Your task to perform on an android device: turn on sleep mode Image 0: 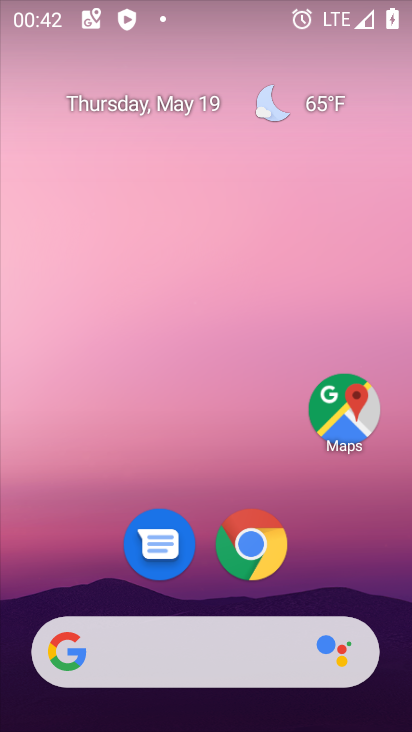
Step 0: drag from (383, 580) to (330, 163)
Your task to perform on an android device: turn on sleep mode Image 1: 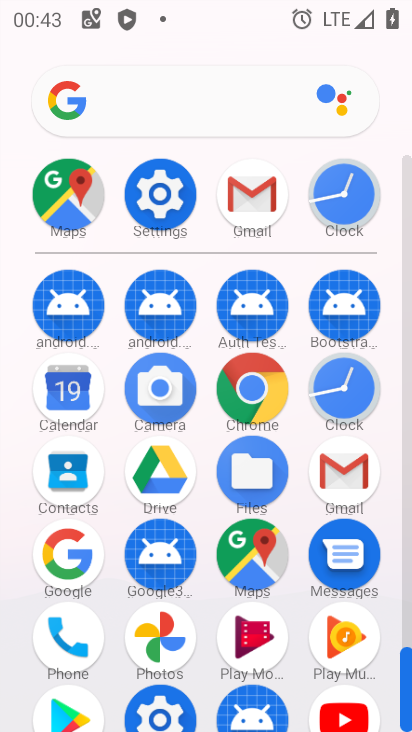
Step 1: click (164, 202)
Your task to perform on an android device: turn on sleep mode Image 2: 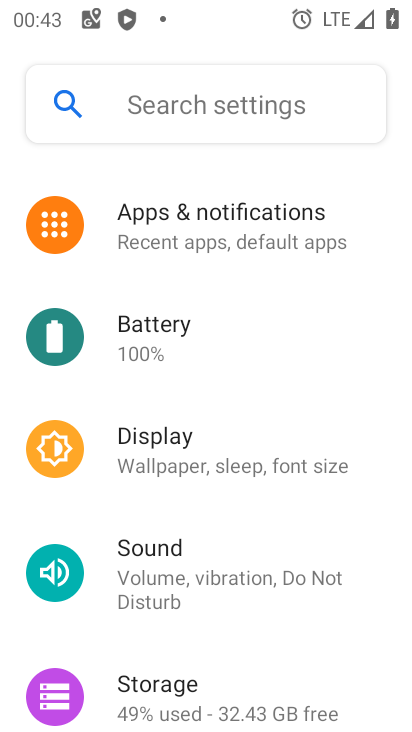
Step 2: drag from (366, 291) to (369, 434)
Your task to perform on an android device: turn on sleep mode Image 3: 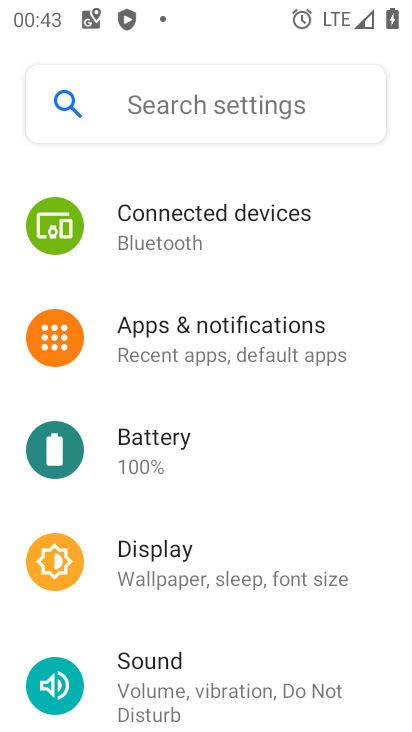
Step 3: drag from (335, 217) to (322, 405)
Your task to perform on an android device: turn on sleep mode Image 4: 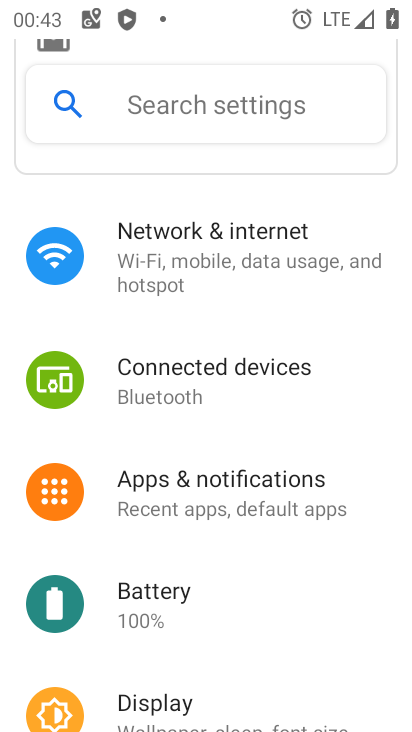
Step 4: drag from (345, 209) to (359, 352)
Your task to perform on an android device: turn on sleep mode Image 5: 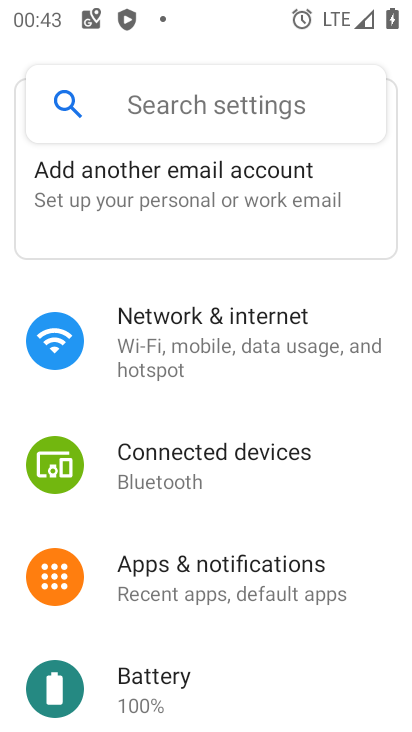
Step 5: drag from (351, 282) to (348, 462)
Your task to perform on an android device: turn on sleep mode Image 6: 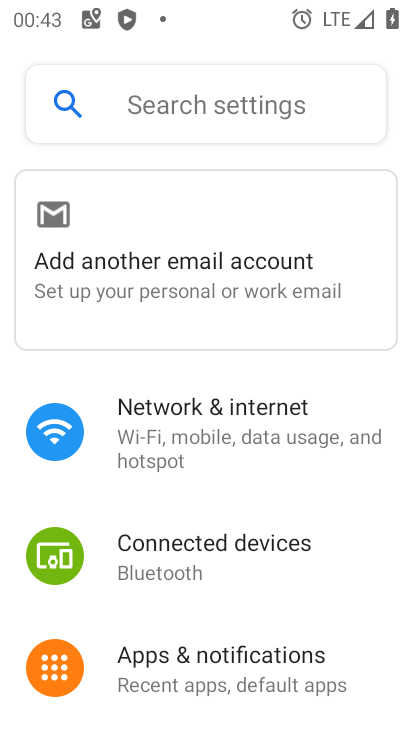
Step 6: drag from (355, 550) to (351, 407)
Your task to perform on an android device: turn on sleep mode Image 7: 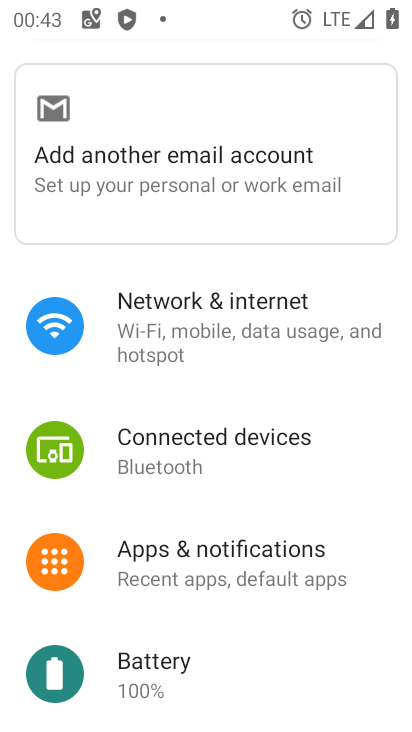
Step 7: drag from (367, 619) to (362, 509)
Your task to perform on an android device: turn on sleep mode Image 8: 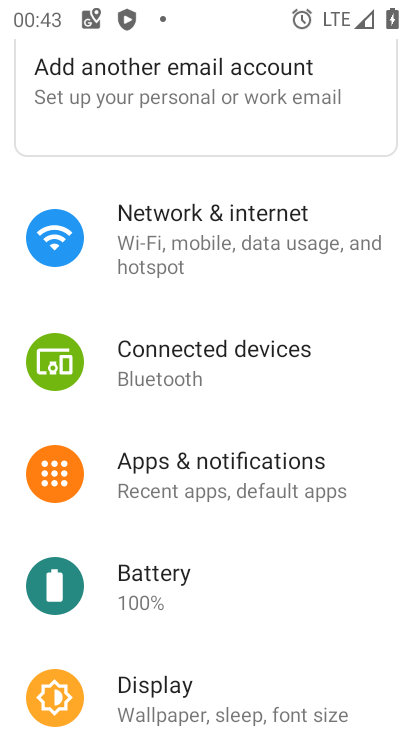
Step 8: drag from (353, 627) to (359, 476)
Your task to perform on an android device: turn on sleep mode Image 9: 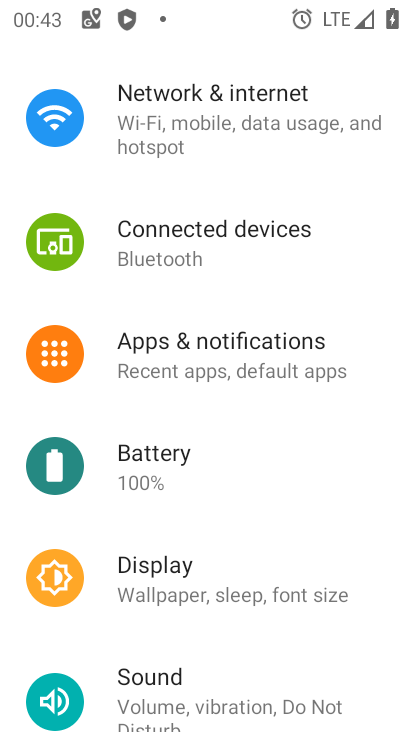
Step 9: drag from (357, 638) to (356, 489)
Your task to perform on an android device: turn on sleep mode Image 10: 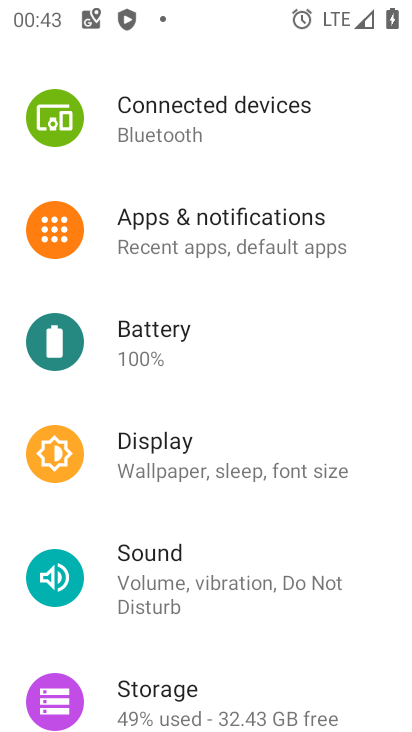
Step 10: click (317, 471)
Your task to perform on an android device: turn on sleep mode Image 11: 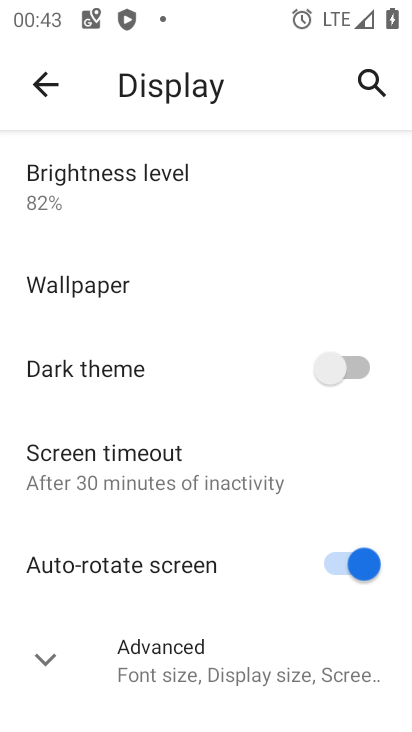
Step 11: click (205, 659)
Your task to perform on an android device: turn on sleep mode Image 12: 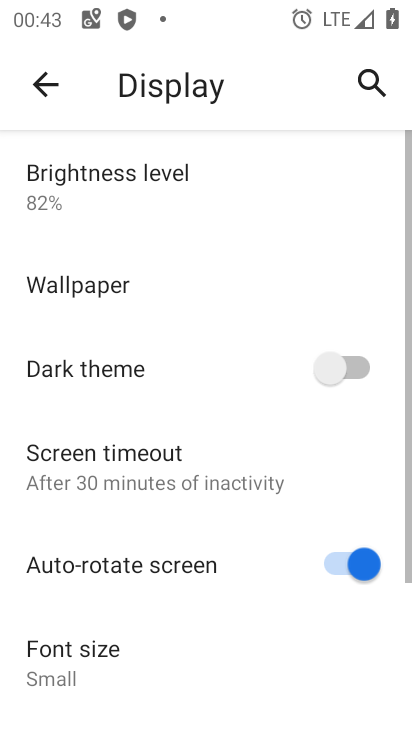
Step 12: task complete